Your task to perform on an android device: Open my contact list Image 0: 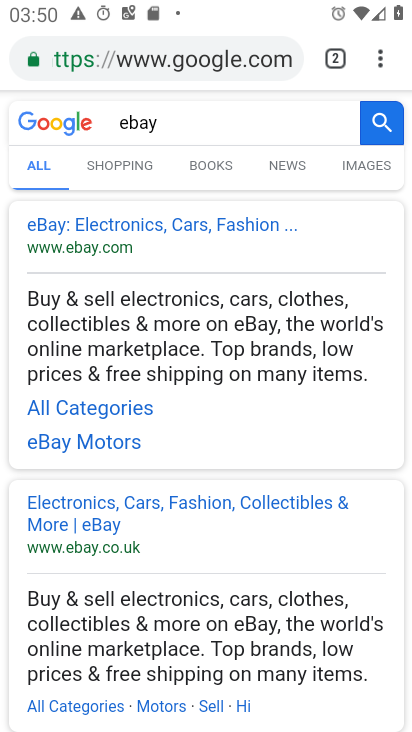
Step 0: press home button
Your task to perform on an android device: Open my contact list Image 1: 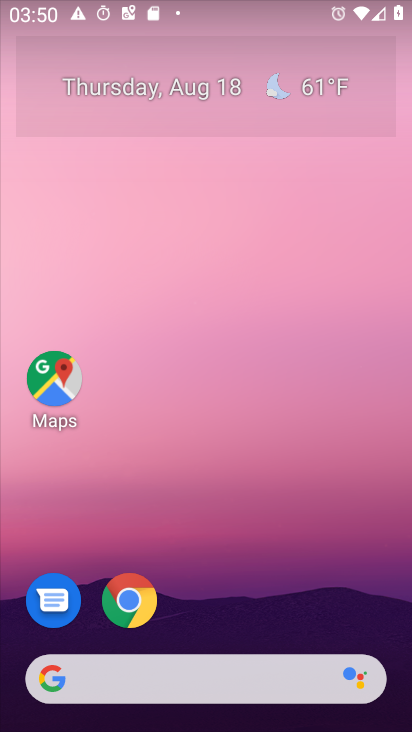
Step 1: drag from (267, 631) to (237, 10)
Your task to perform on an android device: Open my contact list Image 2: 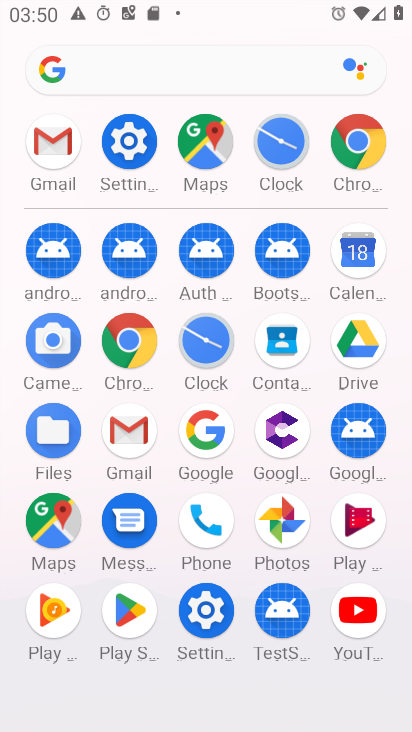
Step 2: click (285, 348)
Your task to perform on an android device: Open my contact list Image 3: 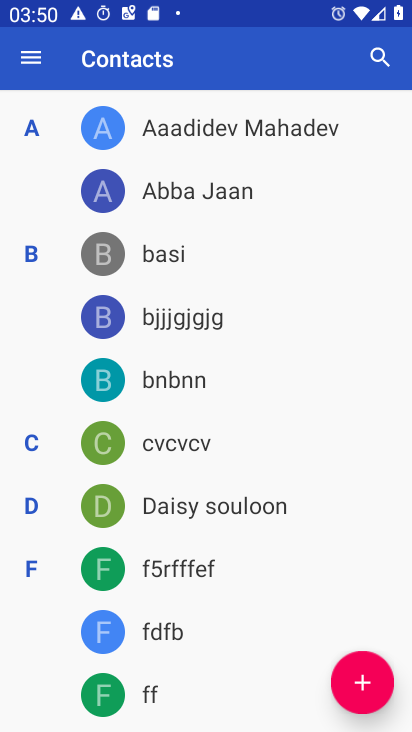
Step 3: task complete